Your task to perform on an android device: Go to wifi settings Image 0: 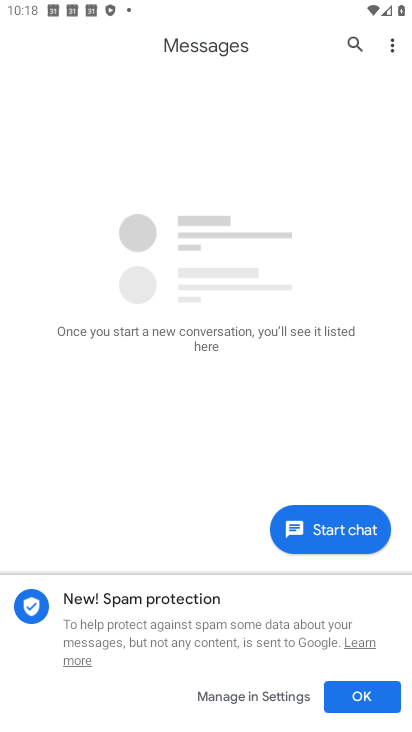
Step 0: press home button
Your task to perform on an android device: Go to wifi settings Image 1: 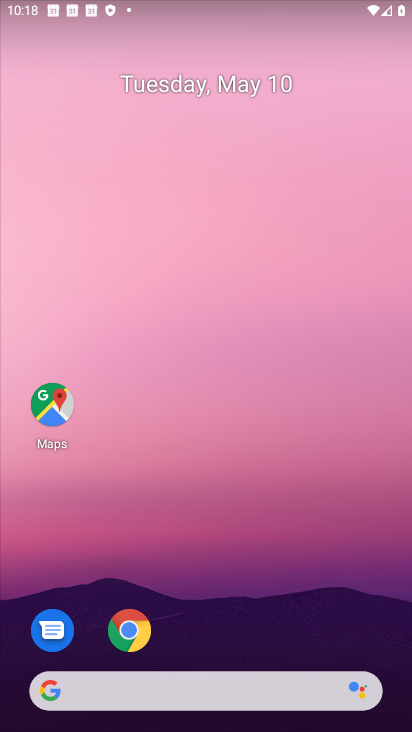
Step 1: drag from (211, 725) to (290, 108)
Your task to perform on an android device: Go to wifi settings Image 2: 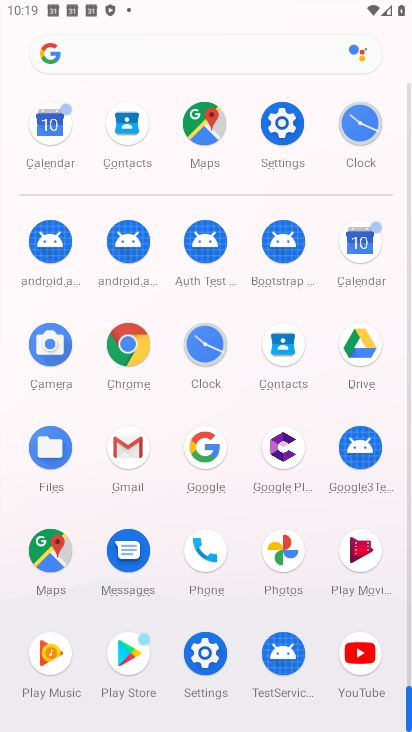
Step 2: click (277, 135)
Your task to perform on an android device: Go to wifi settings Image 3: 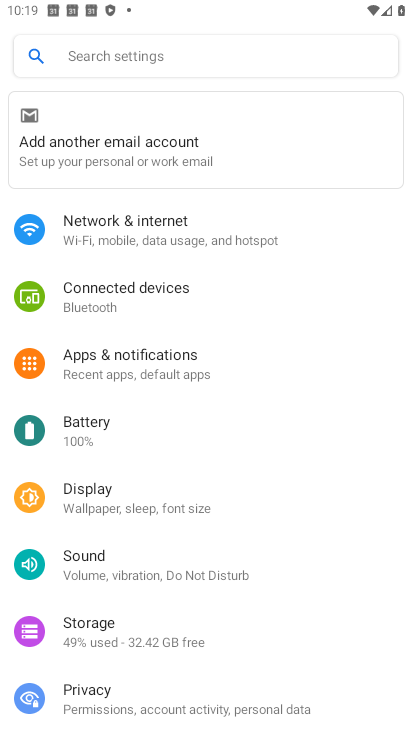
Step 3: click (200, 231)
Your task to perform on an android device: Go to wifi settings Image 4: 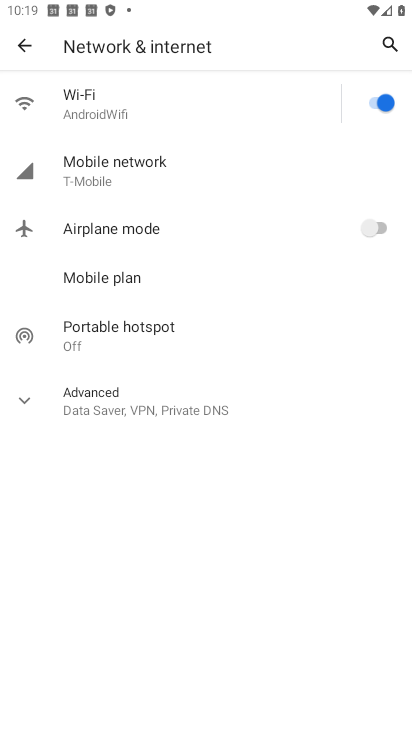
Step 4: click (203, 104)
Your task to perform on an android device: Go to wifi settings Image 5: 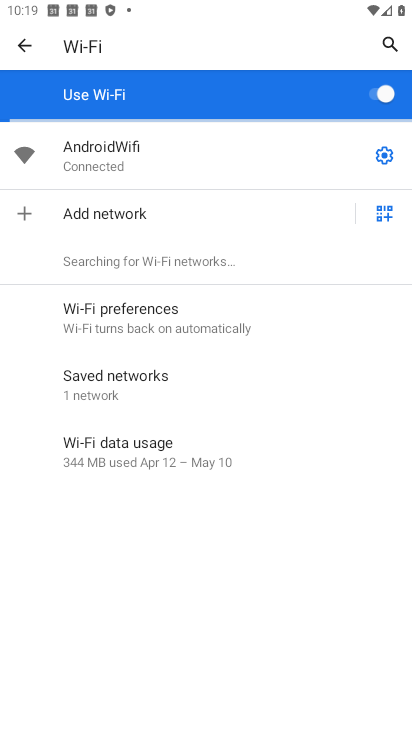
Step 5: click (385, 154)
Your task to perform on an android device: Go to wifi settings Image 6: 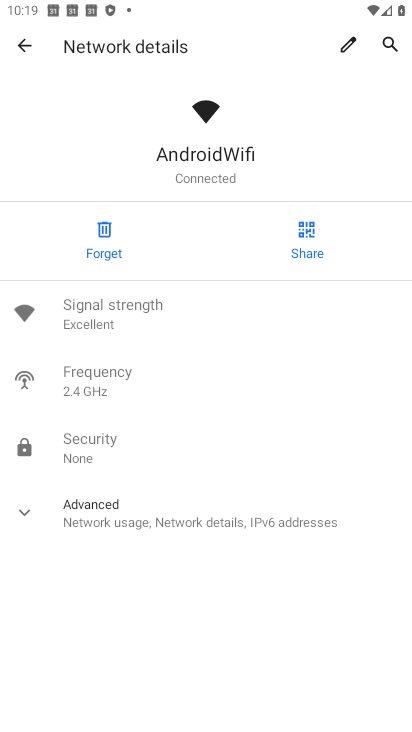
Step 6: task complete